Your task to perform on an android device: Is it going to rain tomorrow? Image 0: 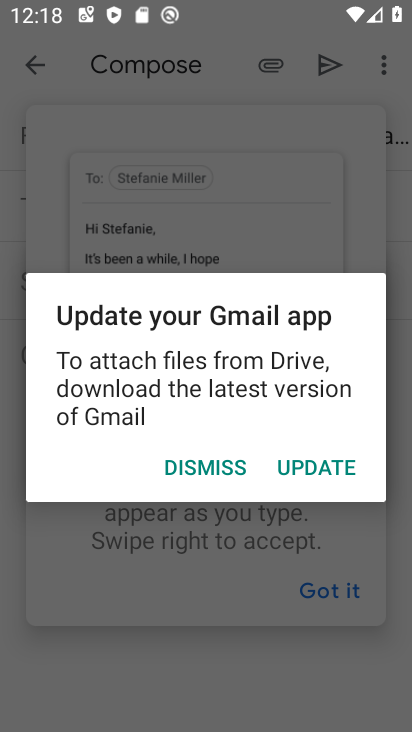
Step 0: click (345, 585)
Your task to perform on an android device: Is it going to rain tomorrow? Image 1: 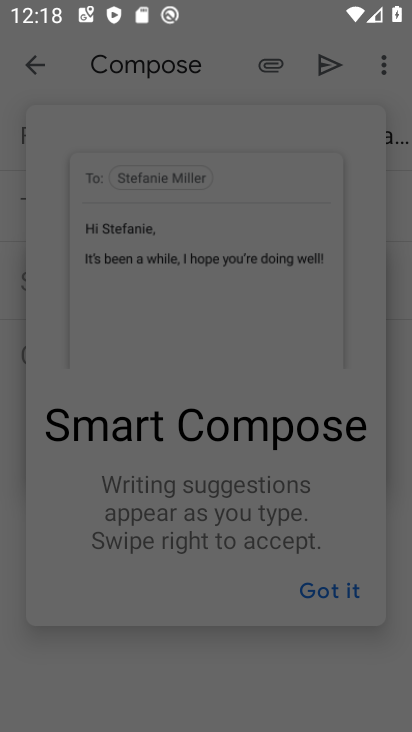
Step 1: press back button
Your task to perform on an android device: Is it going to rain tomorrow? Image 2: 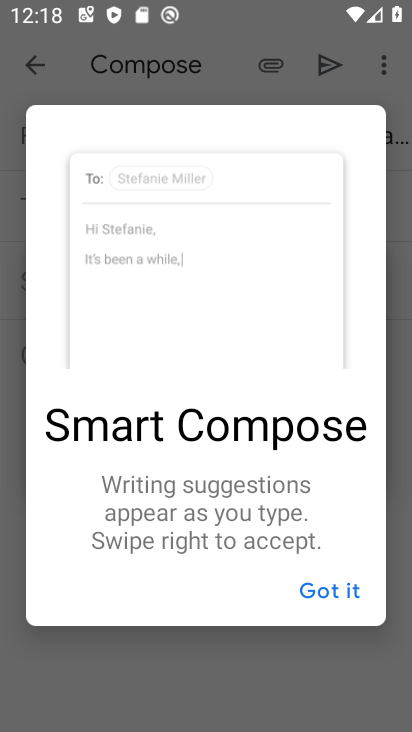
Step 2: press back button
Your task to perform on an android device: Is it going to rain tomorrow? Image 3: 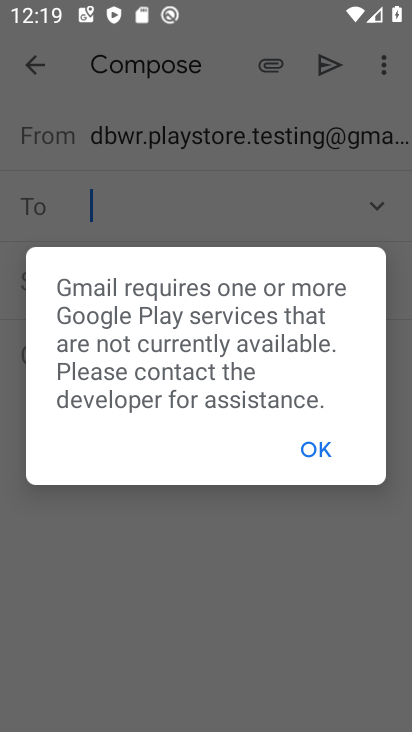
Step 3: press back button
Your task to perform on an android device: Is it going to rain tomorrow? Image 4: 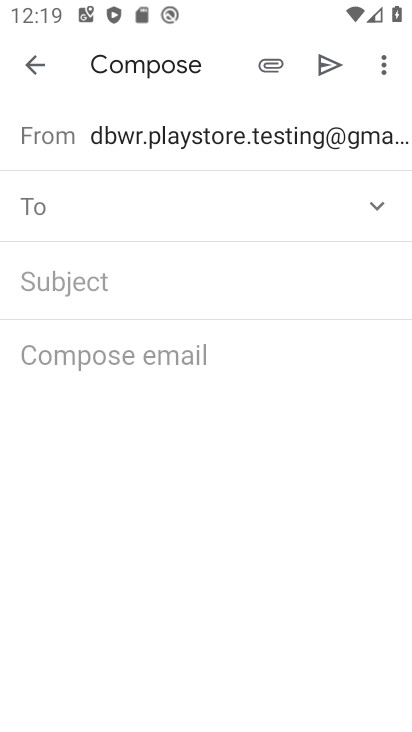
Step 4: press home button
Your task to perform on an android device: Is it going to rain tomorrow? Image 5: 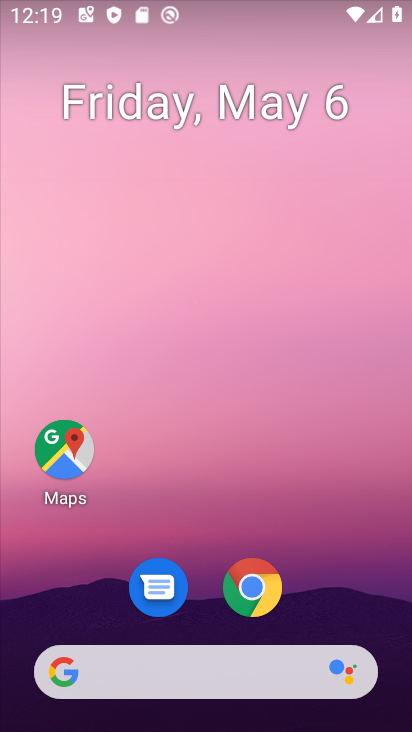
Step 5: drag from (109, 620) to (188, 18)
Your task to perform on an android device: Is it going to rain tomorrow? Image 6: 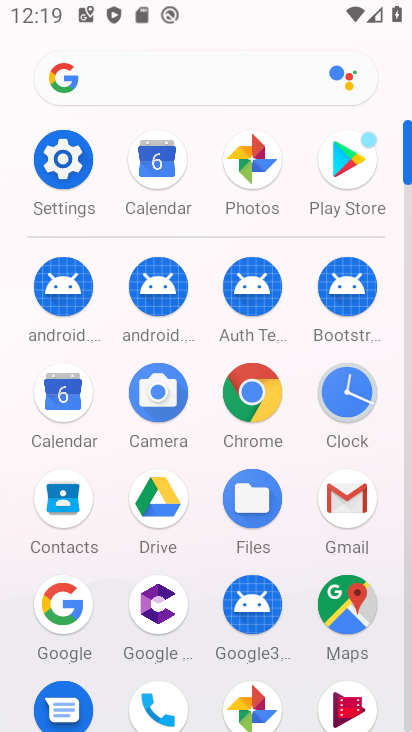
Step 6: click (164, 86)
Your task to perform on an android device: Is it going to rain tomorrow? Image 7: 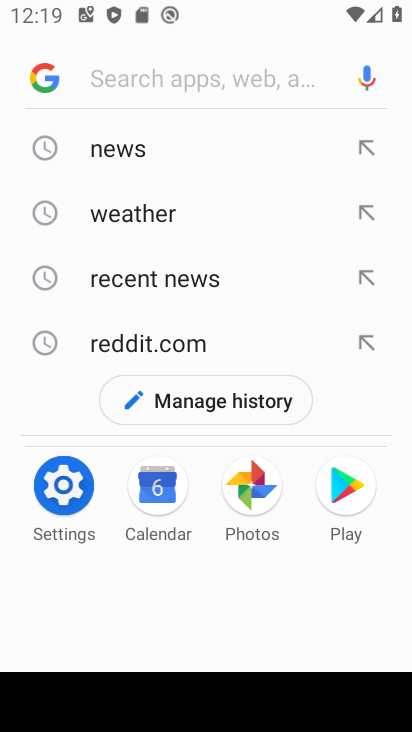
Step 7: click (128, 217)
Your task to perform on an android device: Is it going to rain tomorrow? Image 8: 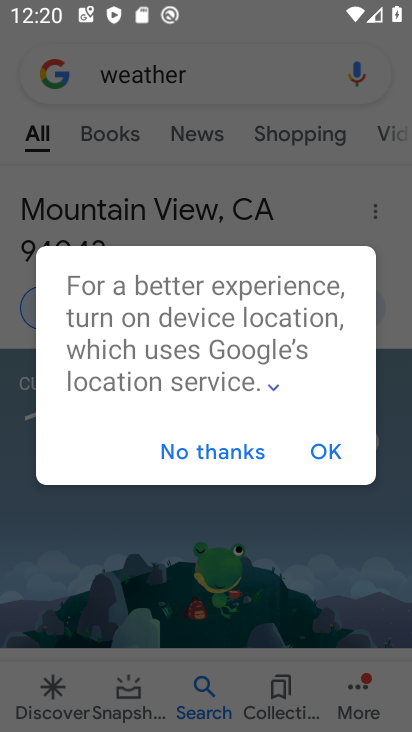
Step 8: click (212, 446)
Your task to perform on an android device: Is it going to rain tomorrow? Image 9: 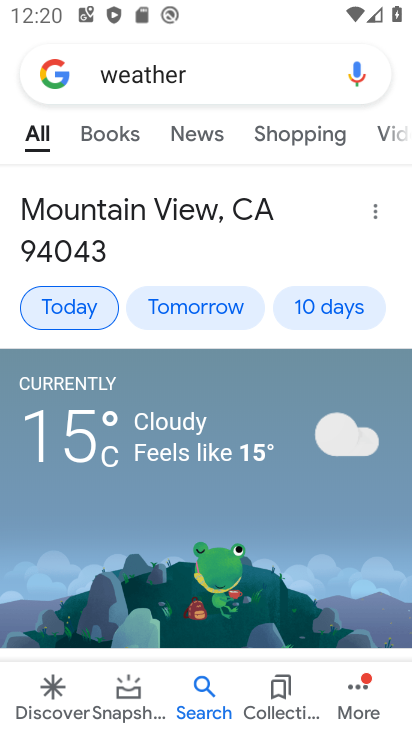
Step 9: click (205, 306)
Your task to perform on an android device: Is it going to rain tomorrow? Image 10: 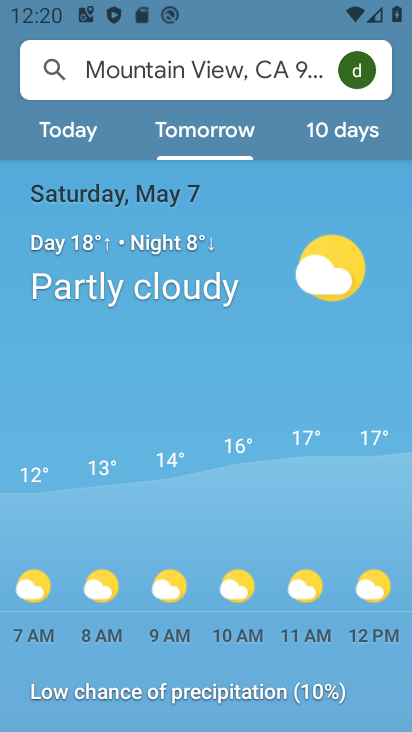
Step 10: task complete